Your task to perform on an android device: View the shopping cart on costco. Image 0: 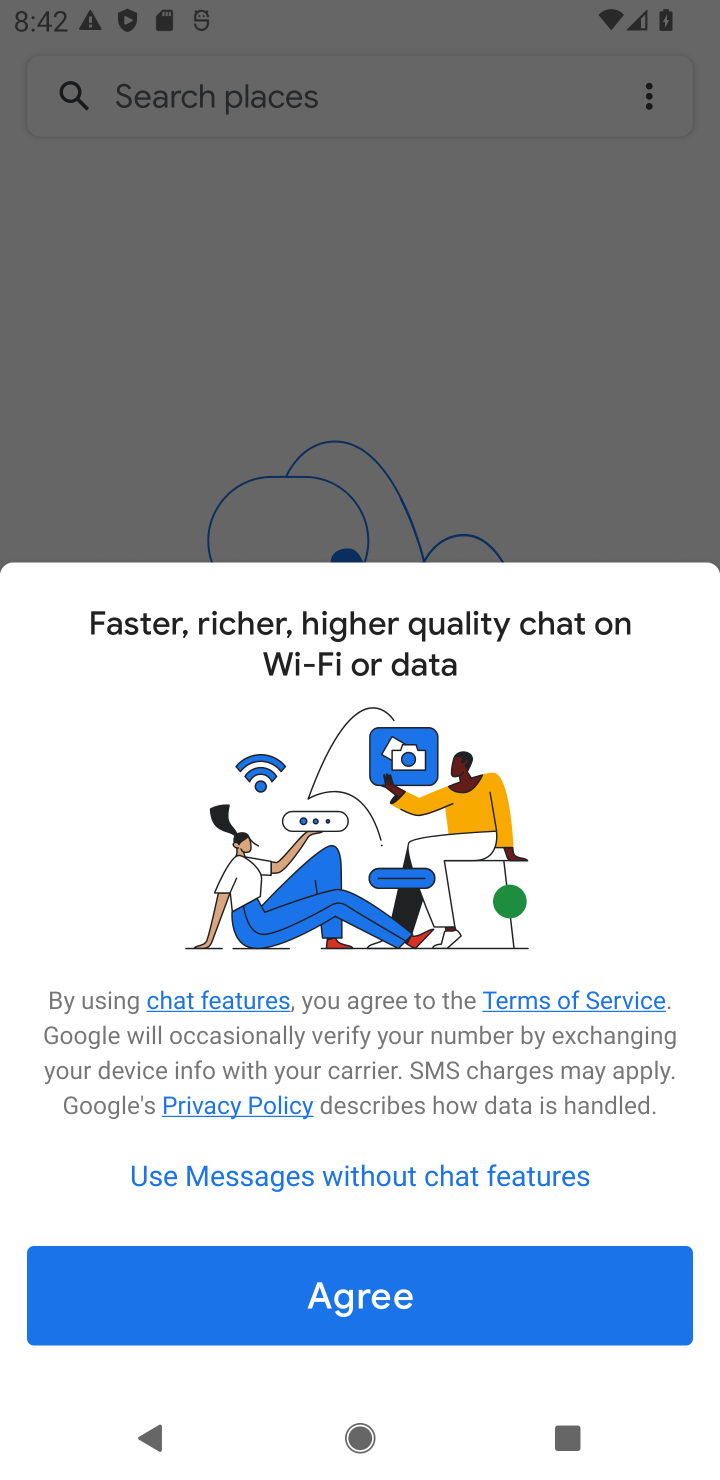
Step 0: task complete